Your task to perform on an android device: Check the weather Image 0: 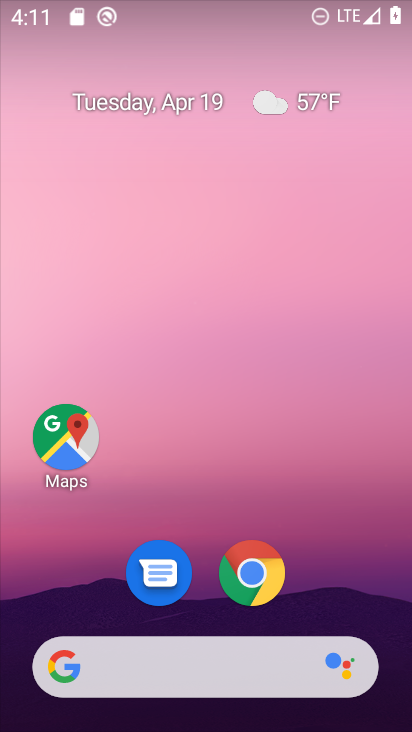
Step 0: click (316, 101)
Your task to perform on an android device: Check the weather Image 1: 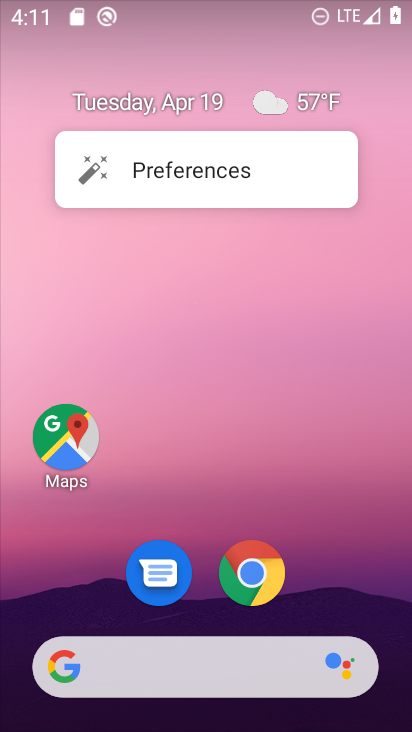
Step 1: click (309, 102)
Your task to perform on an android device: Check the weather Image 2: 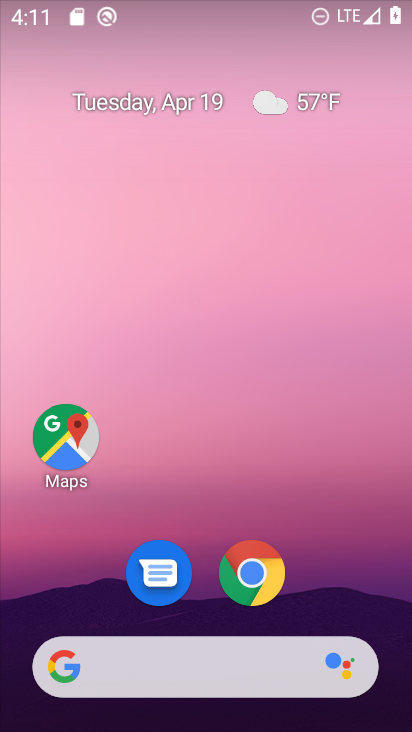
Step 2: click (320, 100)
Your task to perform on an android device: Check the weather Image 3: 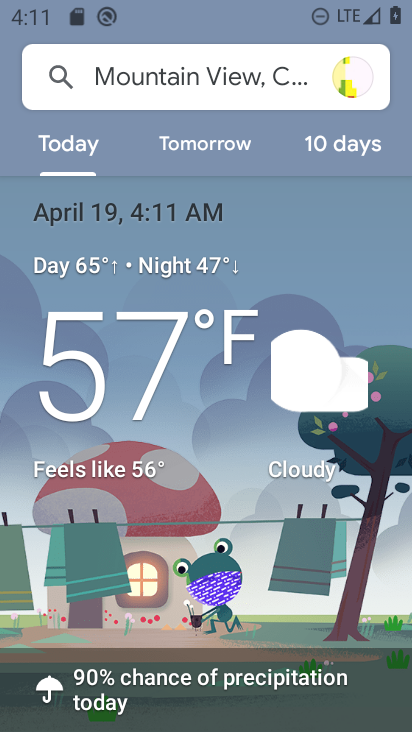
Step 3: task complete